Your task to perform on an android device: empty trash in google photos Image 0: 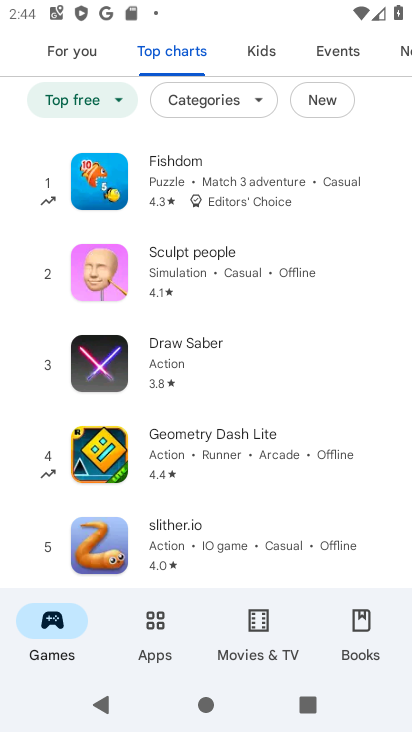
Step 0: press home button
Your task to perform on an android device: empty trash in google photos Image 1: 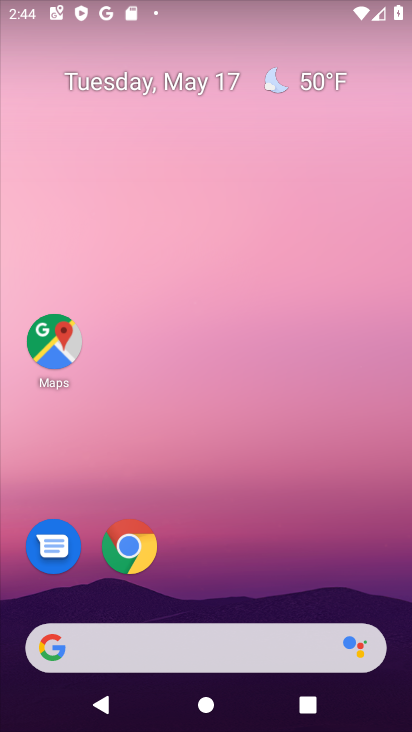
Step 1: drag from (226, 596) to (274, 8)
Your task to perform on an android device: empty trash in google photos Image 2: 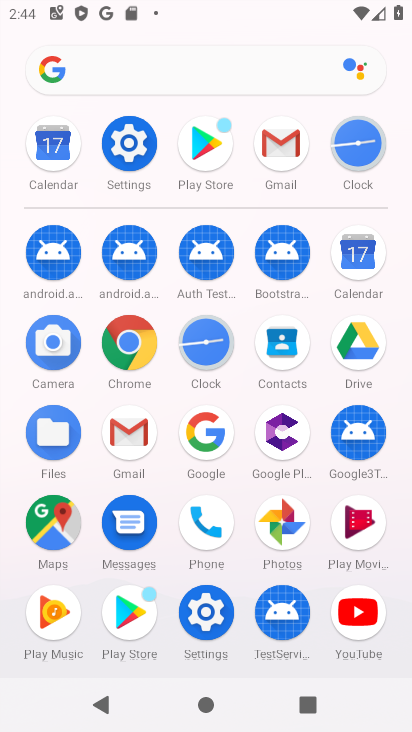
Step 2: click (286, 523)
Your task to perform on an android device: empty trash in google photos Image 3: 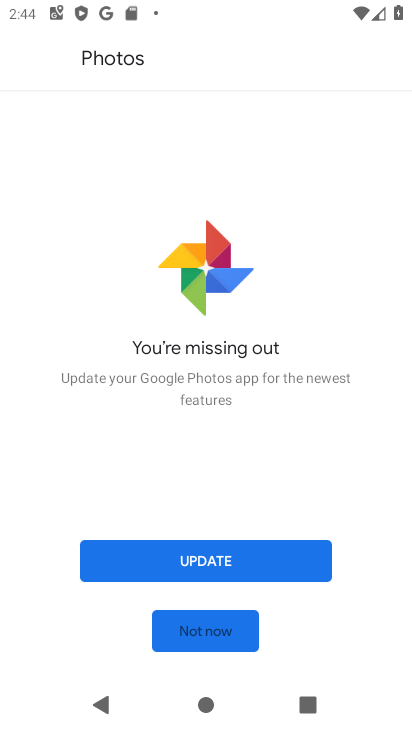
Step 3: click (208, 640)
Your task to perform on an android device: empty trash in google photos Image 4: 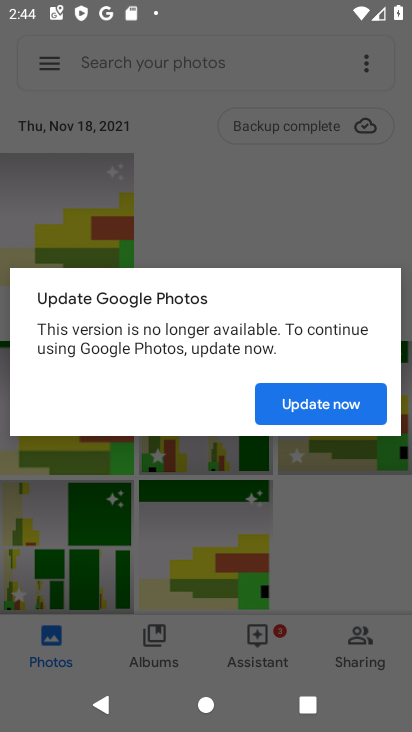
Step 4: click (336, 403)
Your task to perform on an android device: empty trash in google photos Image 5: 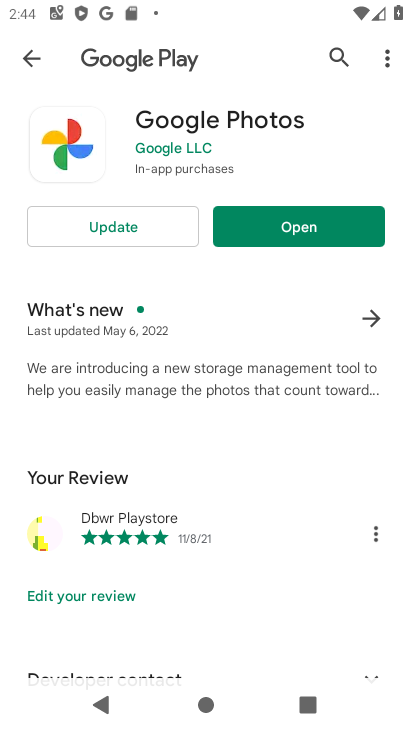
Step 5: click (155, 226)
Your task to perform on an android device: empty trash in google photos Image 6: 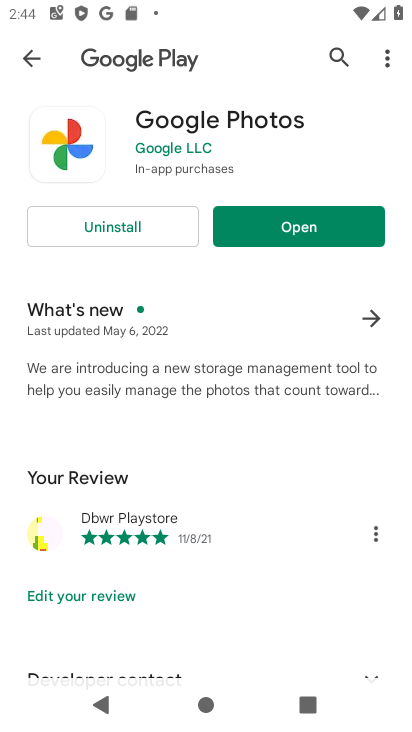
Step 6: click (291, 236)
Your task to perform on an android device: empty trash in google photos Image 7: 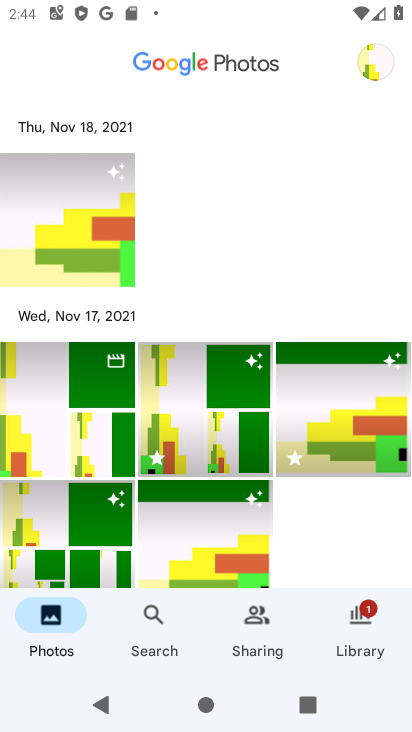
Step 7: click (372, 621)
Your task to perform on an android device: empty trash in google photos Image 8: 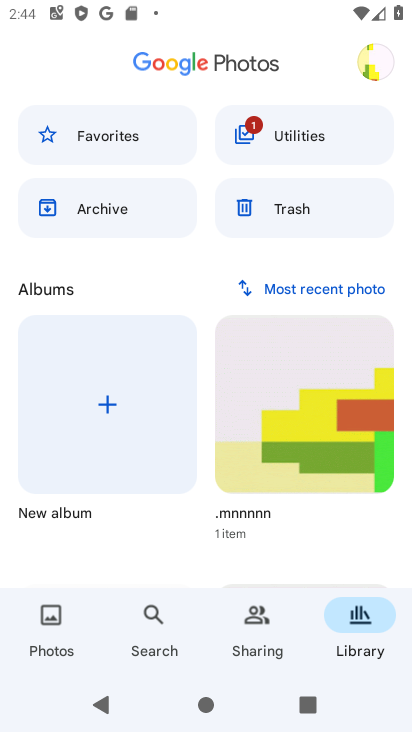
Step 8: click (327, 200)
Your task to perform on an android device: empty trash in google photos Image 9: 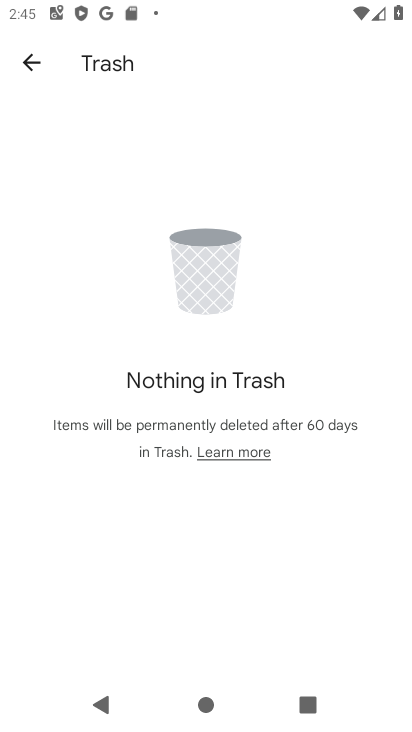
Step 9: task complete